Your task to perform on an android device: snooze an email in the gmail app Image 0: 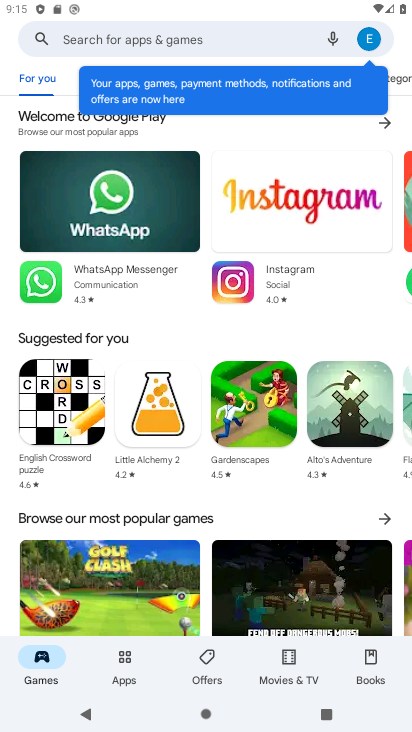
Step 0: press home button
Your task to perform on an android device: snooze an email in the gmail app Image 1: 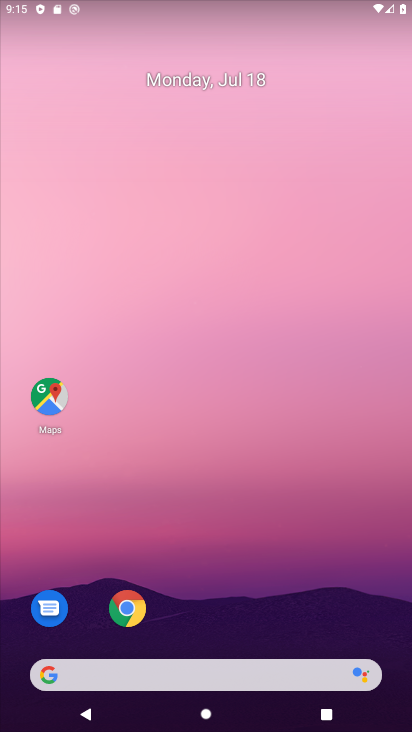
Step 1: drag from (220, 614) to (156, 9)
Your task to perform on an android device: snooze an email in the gmail app Image 2: 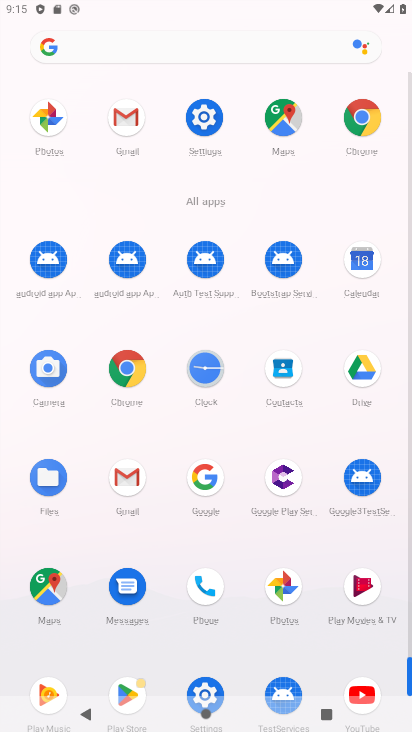
Step 2: click (126, 487)
Your task to perform on an android device: snooze an email in the gmail app Image 3: 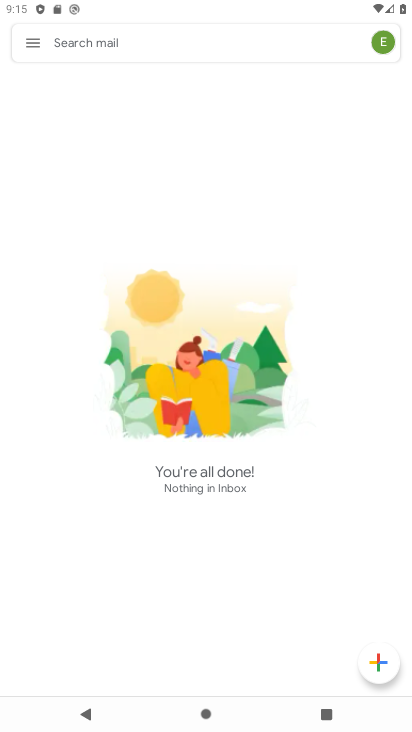
Step 3: task complete